Your task to perform on an android device: turn off wifi Image 0: 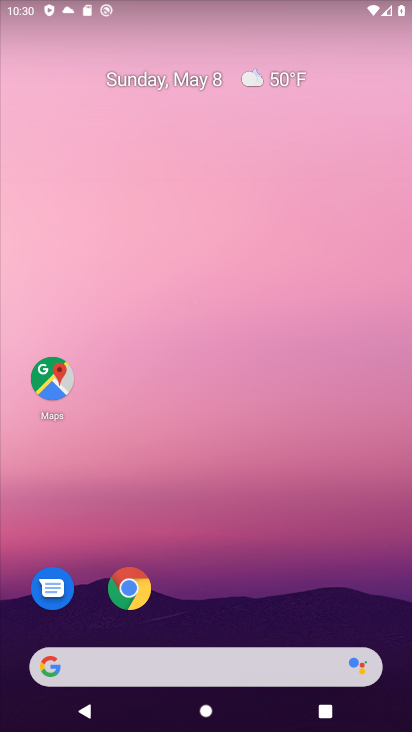
Step 0: drag from (275, 568) to (198, 54)
Your task to perform on an android device: turn off wifi Image 1: 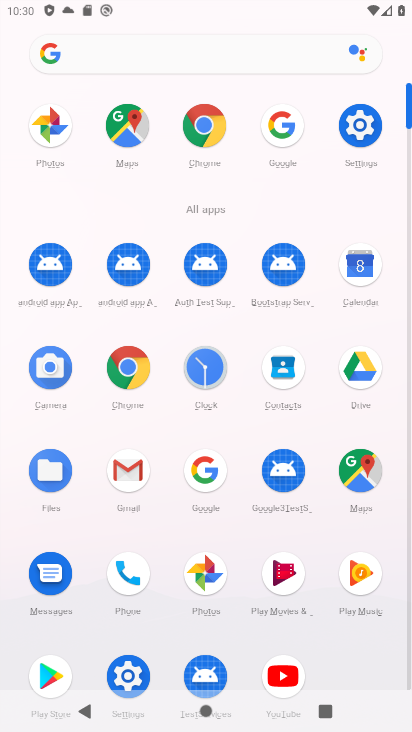
Step 1: click (358, 125)
Your task to perform on an android device: turn off wifi Image 2: 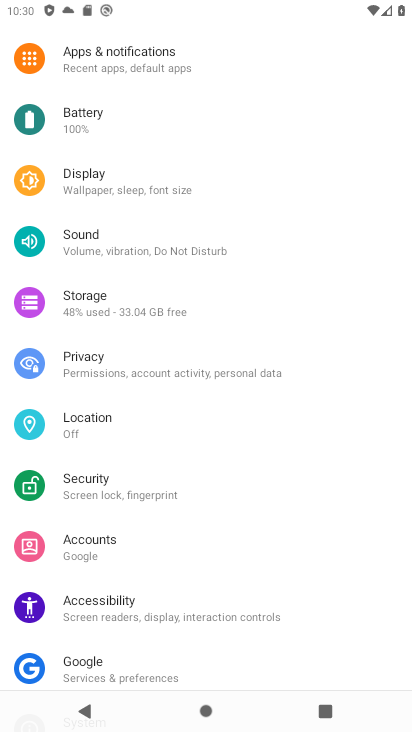
Step 2: drag from (213, 106) to (134, 578)
Your task to perform on an android device: turn off wifi Image 3: 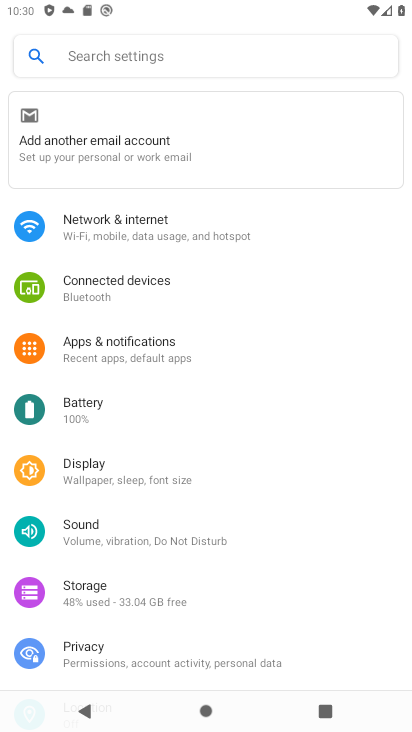
Step 3: click (165, 231)
Your task to perform on an android device: turn off wifi Image 4: 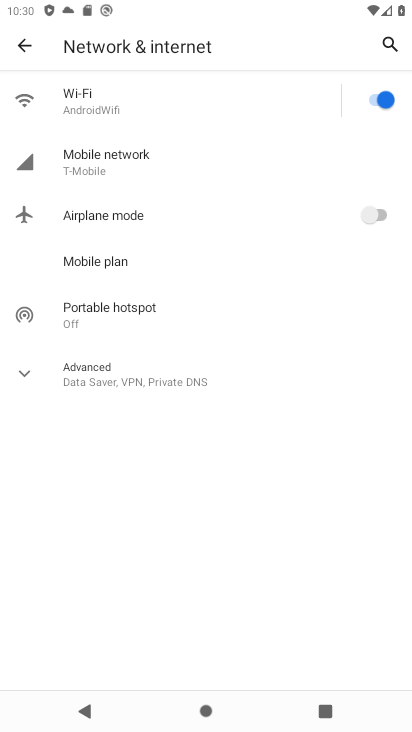
Step 4: click (381, 90)
Your task to perform on an android device: turn off wifi Image 5: 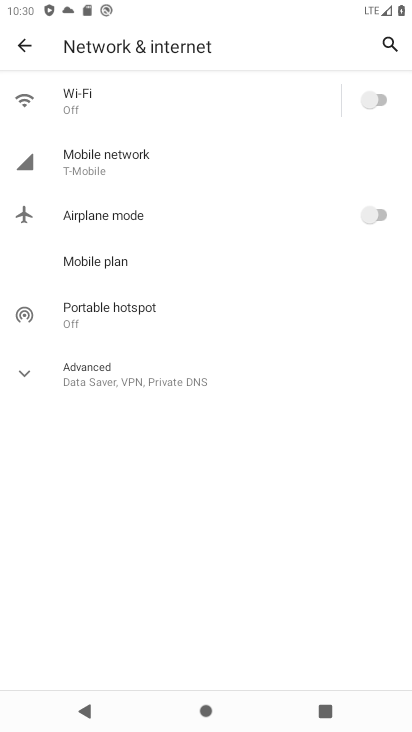
Step 5: task complete